Your task to perform on an android device: star an email in the gmail app Image 0: 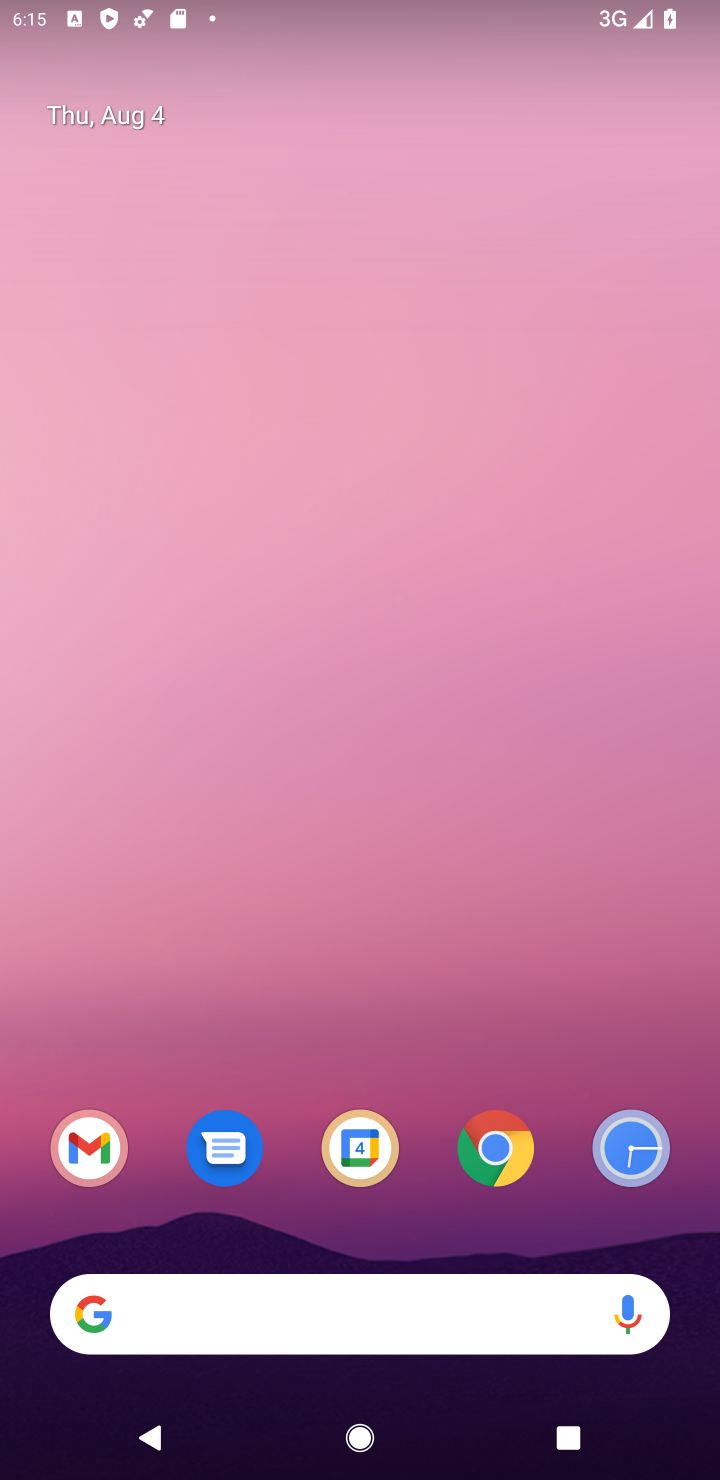
Step 0: click (87, 1146)
Your task to perform on an android device: star an email in the gmail app Image 1: 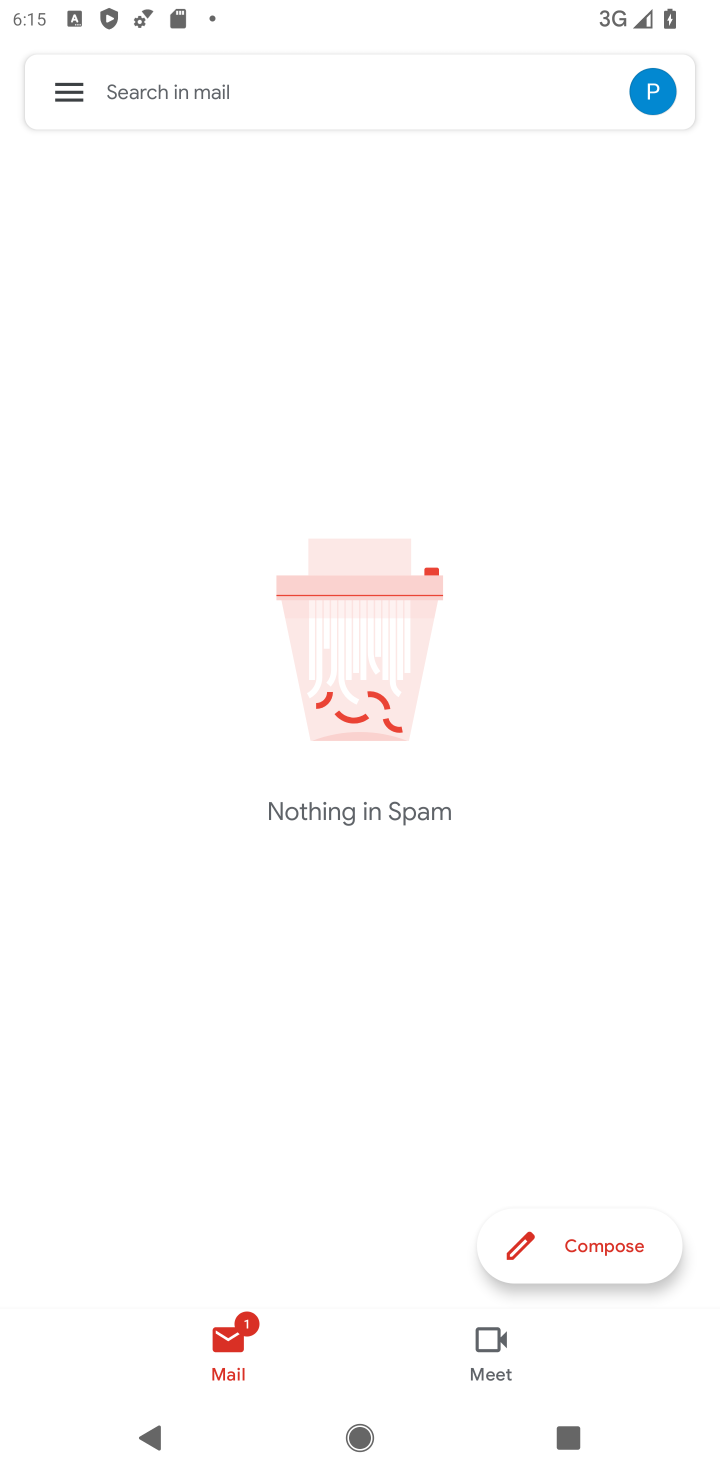
Step 1: click (63, 100)
Your task to perform on an android device: star an email in the gmail app Image 2: 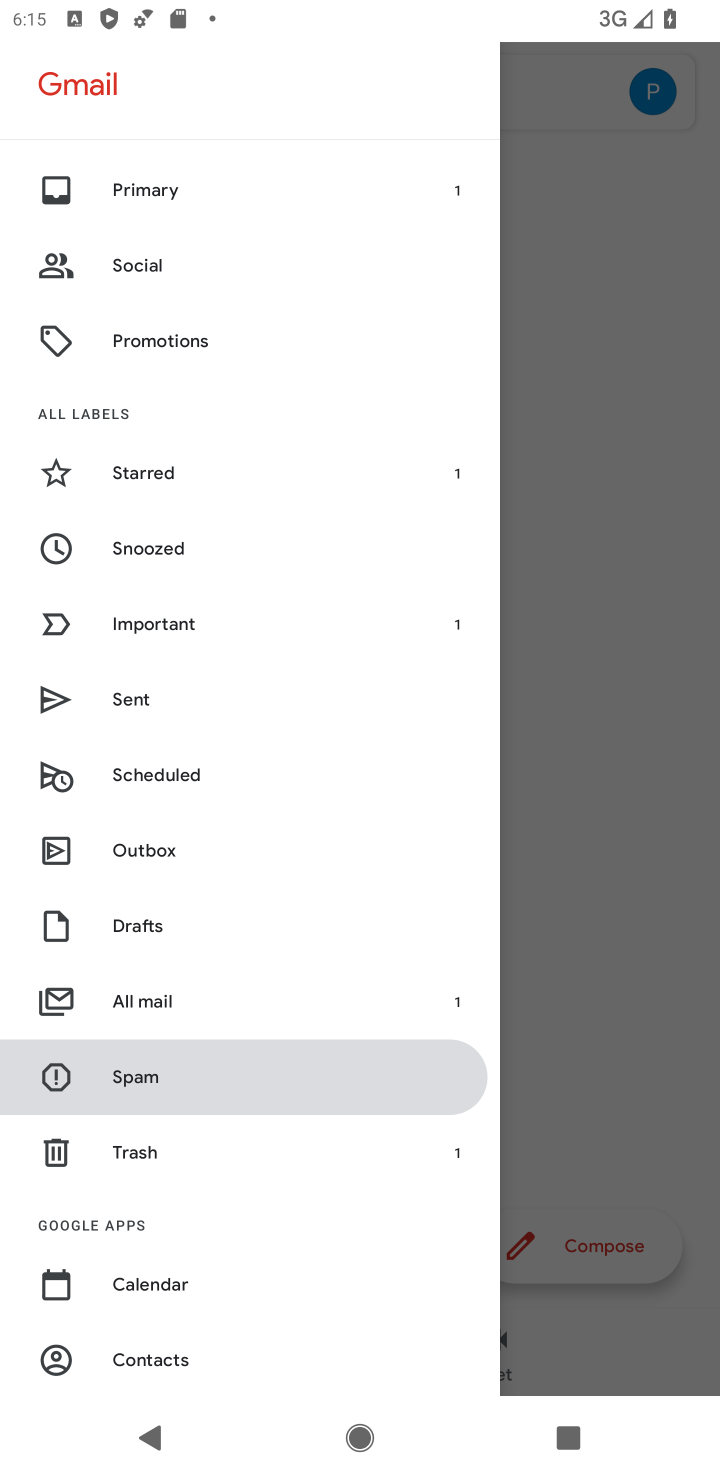
Step 2: click (153, 993)
Your task to perform on an android device: star an email in the gmail app Image 3: 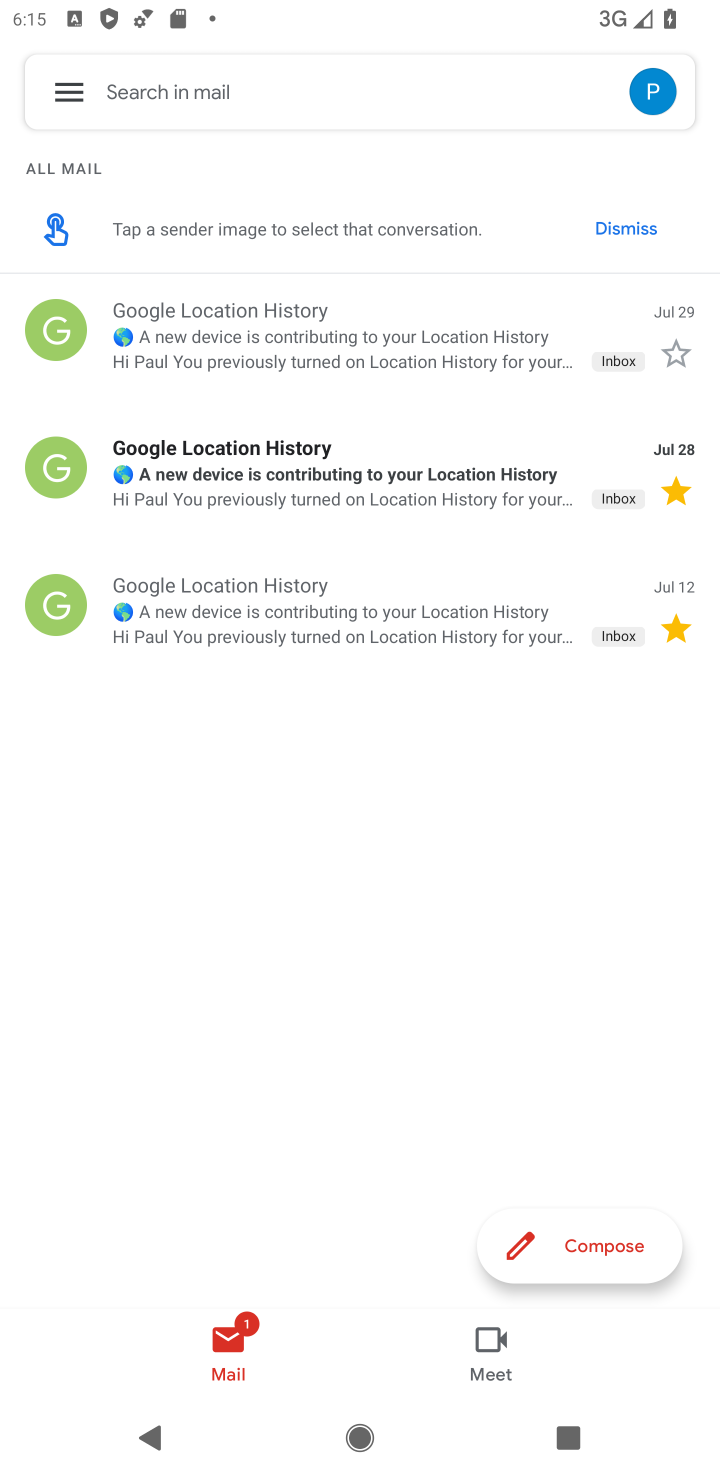
Step 3: click (674, 357)
Your task to perform on an android device: star an email in the gmail app Image 4: 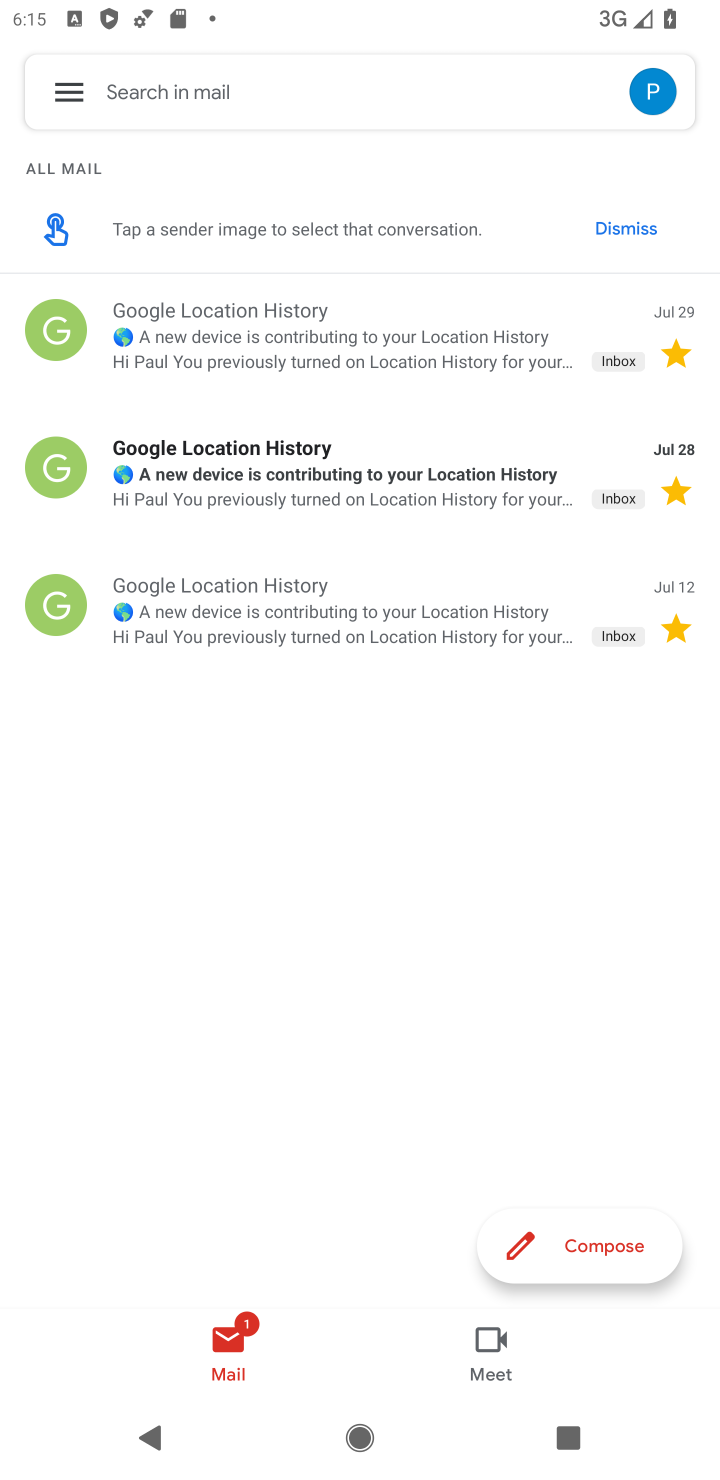
Step 4: task complete